Your task to perform on an android device: change alarm snooze length Image 0: 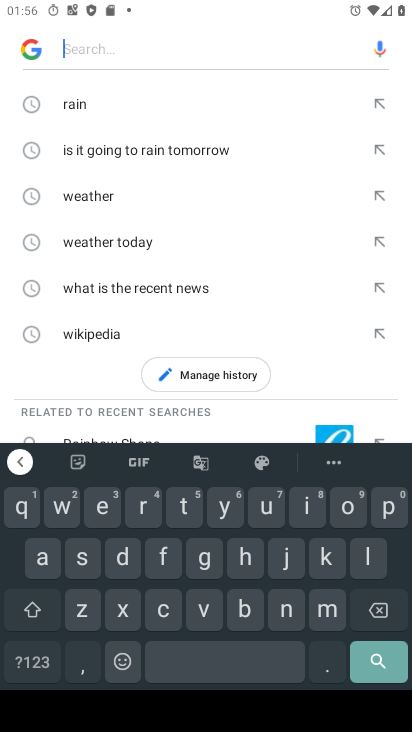
Step 0: press home button
Your task to perform on an android device: change alarm snooze length Image 1: 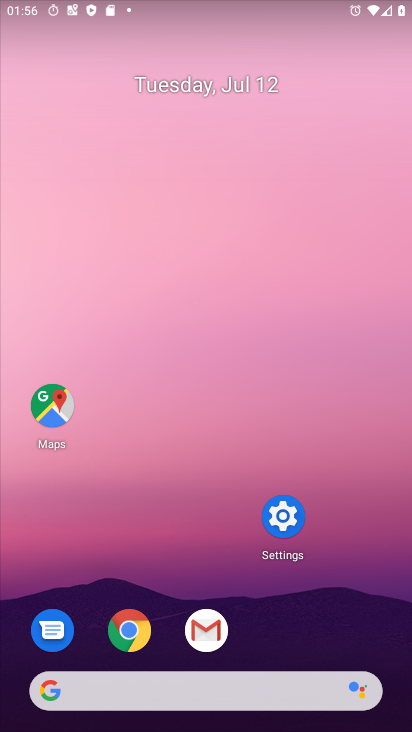
Step 1: drag from (269, 720) to (309, 164)
Your task to perform on an android device: change alarm snooze length Image 2: 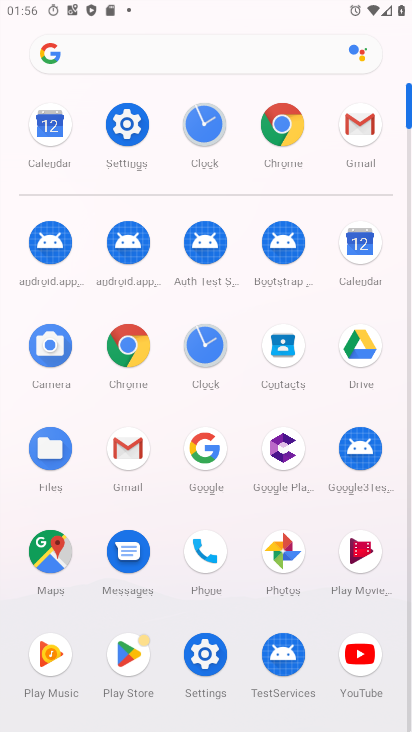
Step 2: click (204, 357)
Your task to perform on an android device: change alarm snooze length Image 3: 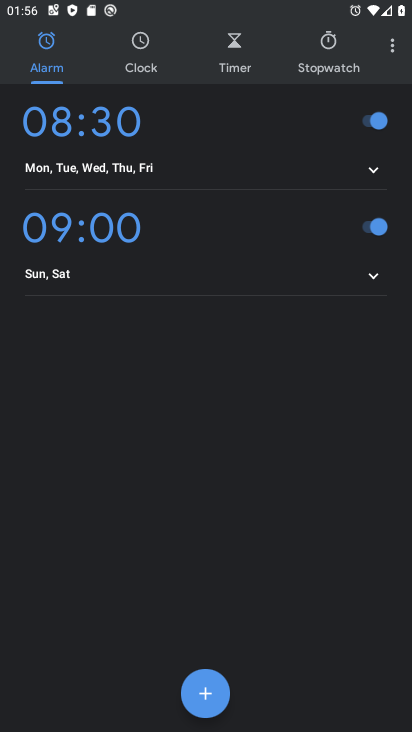
Step 3: click (382, 68)
Your task to perform on an android device: change alarm snooze length Image 4: 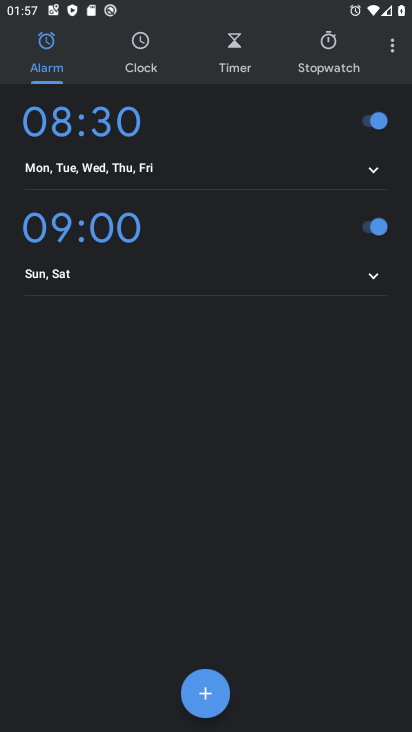
Step 4: click (402, 42)
Your task to perform on an android device: change alarm snooze length Image 5: 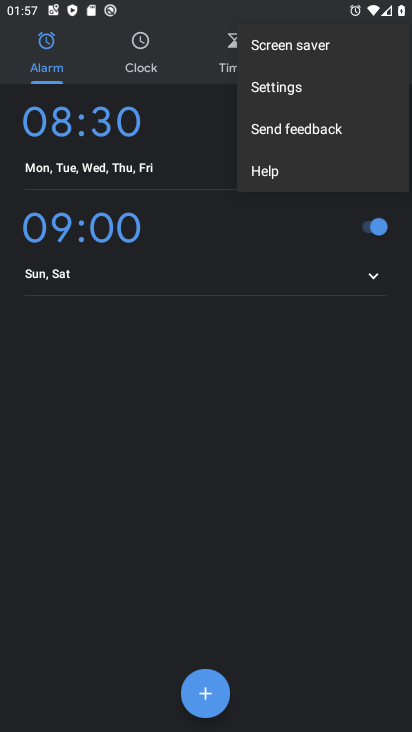
Step 5: click (329, 85)
Your task to perform on an android device: change alarm snooze length Image 6: 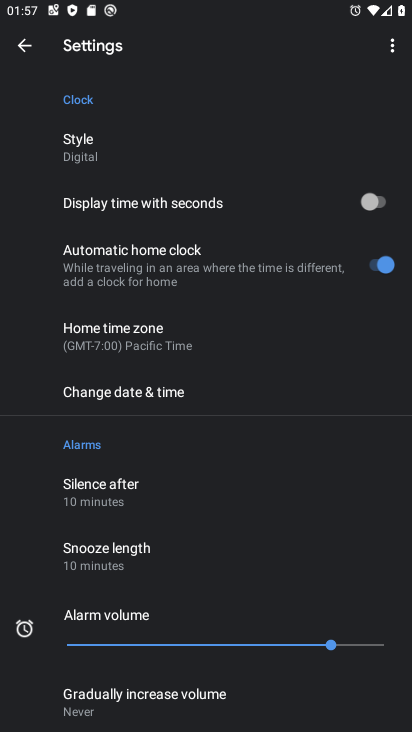
Step 6: click (154, 535)
Your task to perform on an android device: change alarm snooze length Image 7: 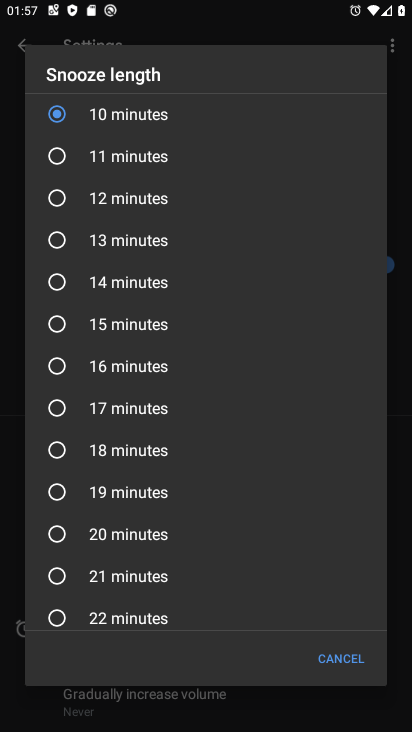
Step 7: click (133, 454)
Your task to perform on an android device: change alarm snooze length Image 8: 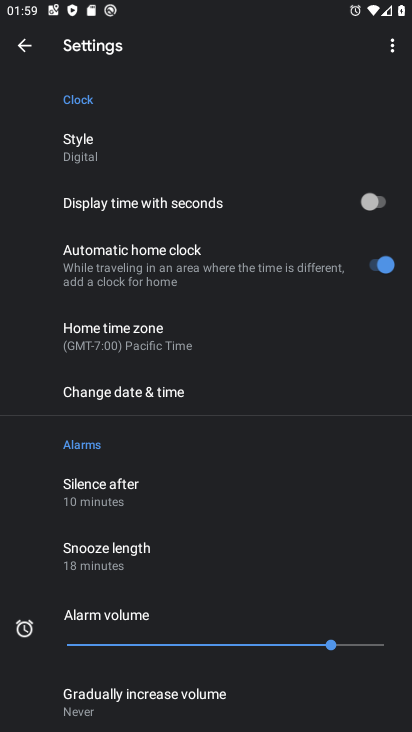
Step 8: task complete